Your task to perform on an android device: empty trash in the gmail app Image 0: 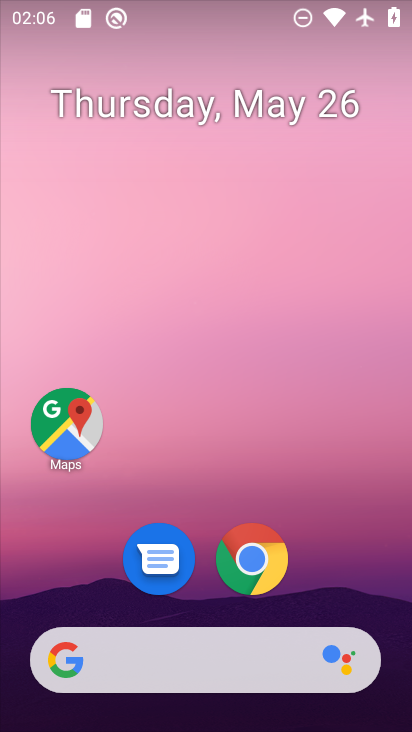
Step 0: press home button
Your task to perform on an android device: empty trash in the gmail app Image 1: 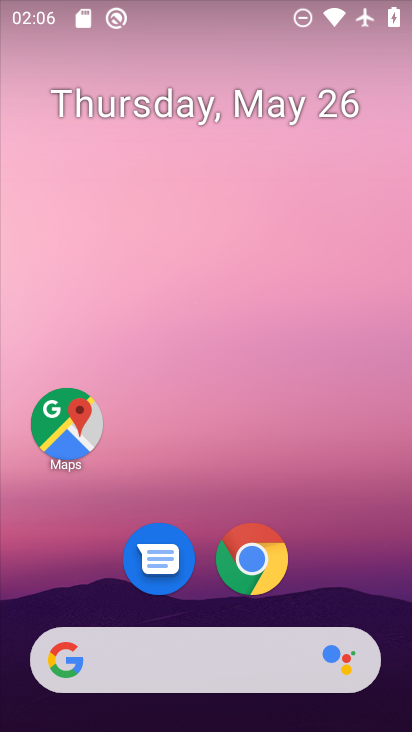
Step 1: drag from (216, 518) to (318, 193)
Your task to perform on an android device: empty trash in the gmail app Image 2: 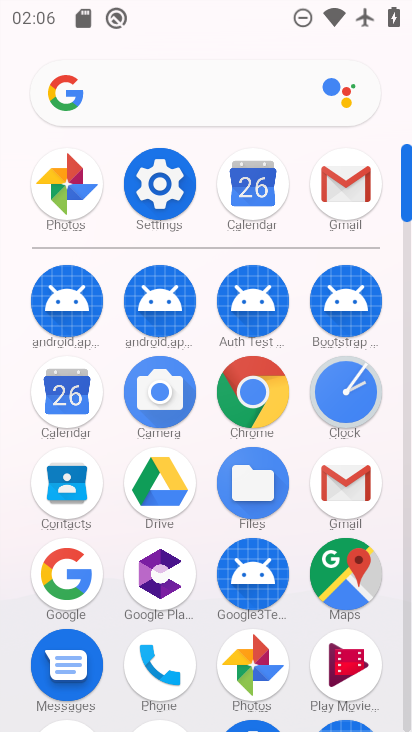
Step 2: click (356, 195)
Your task to perform on an android device: empty trash in the gmail app Image 3: 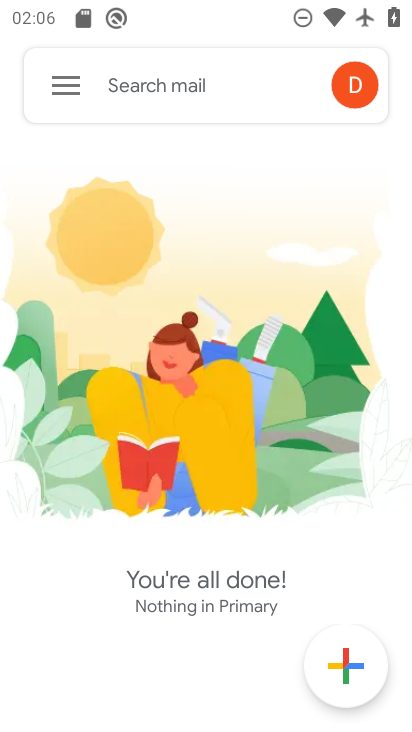
Step 3: click (72, 89)
Your task to perform on an android device: empty trash in the gmail app Image 4: 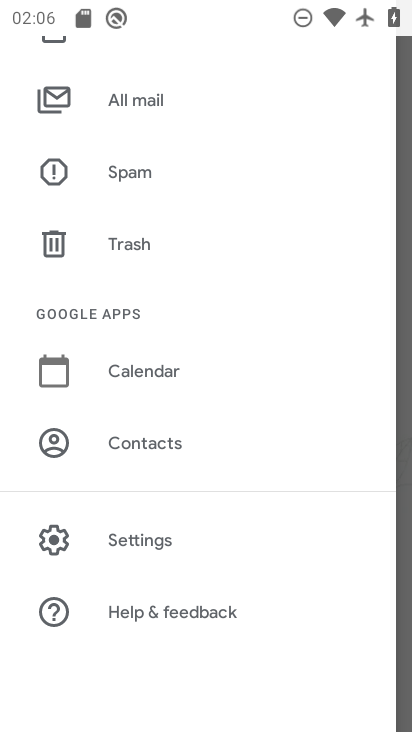
Step 4: click (129, 246)
Your task to perform on an android device: empty trash in the gmail app Image 5: 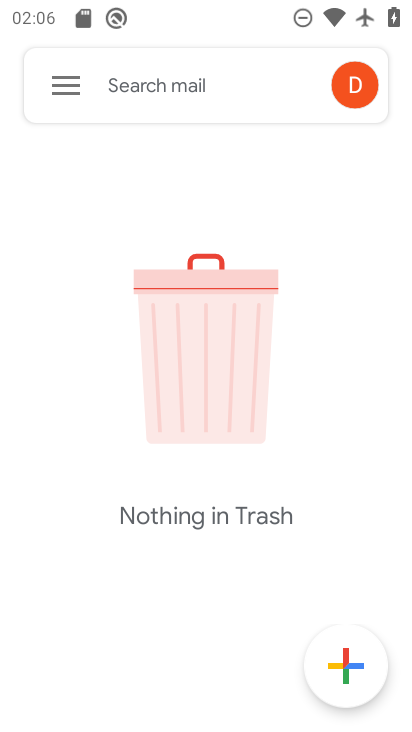
Step 5: task complete